Your task to perform on an android device: Set the phone to "Do not disturb". Image 0: 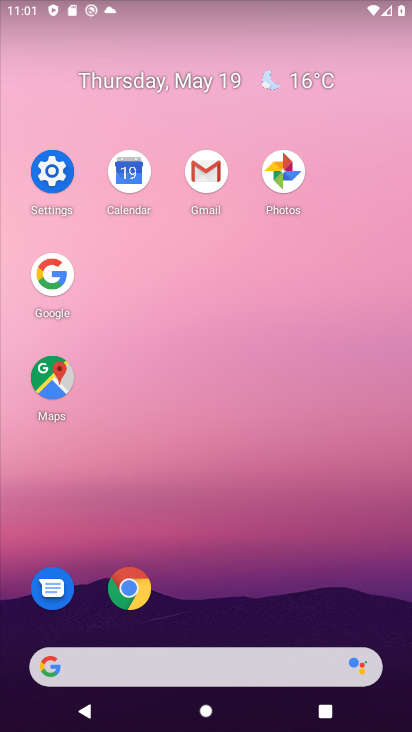
Step 0: click (62, 186)
Your task to perform on an android device: Set the phone to "Do not disturb". Image 1: 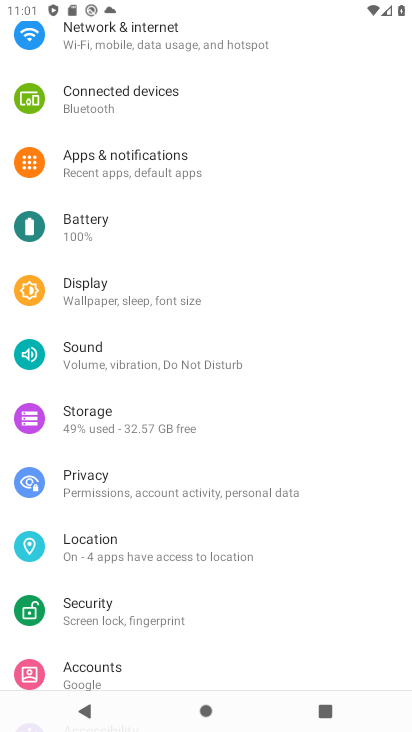
Step 1: click (274, 347)
Your task to perform on an android device: Set the phone to "Do not disturb". Image 2: 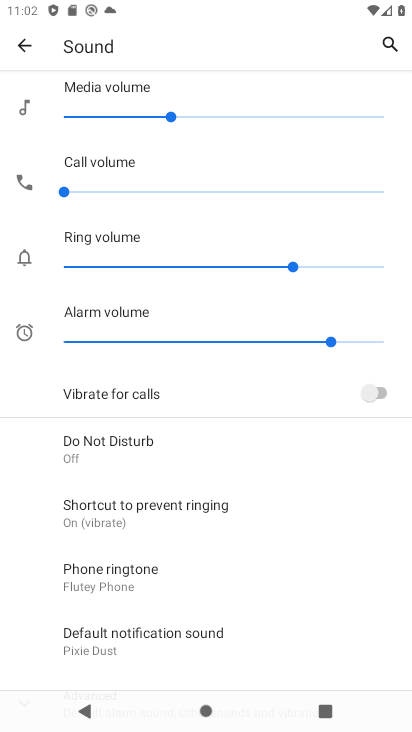
Step 2: drag from (246, 560) to (240, 198)
Your task to perform on an android device: Set the phone to "Do not disturb". Image 3: 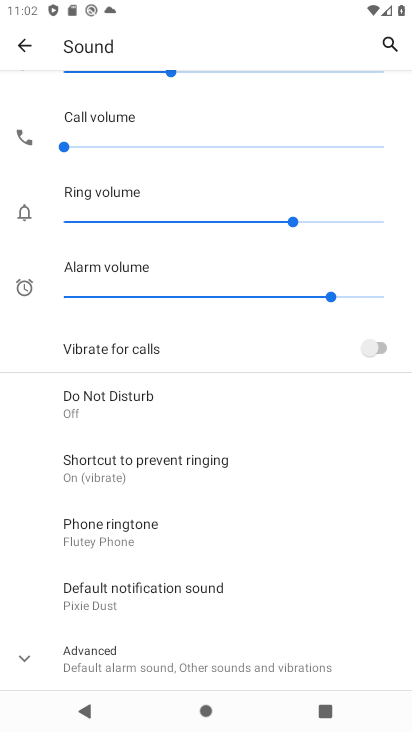
Step 3: click (178, 408)
Your task to perform on an android device: Set the phone to "Do not disturb". Image 4: 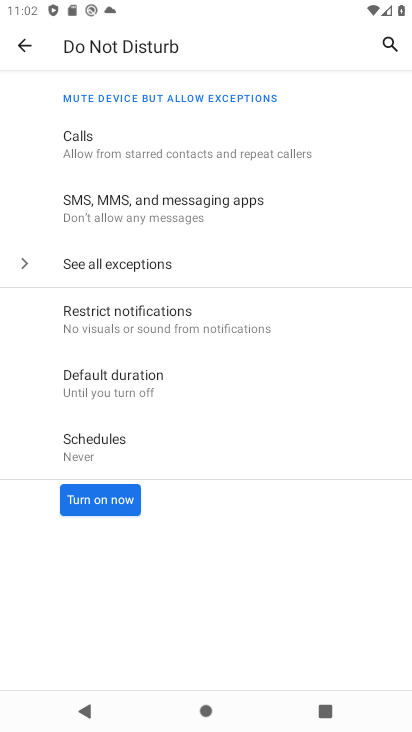
Step 4: click (117, 495)
Your task to perform on an android device: Set the phone to "Do not disturb". Image 5: 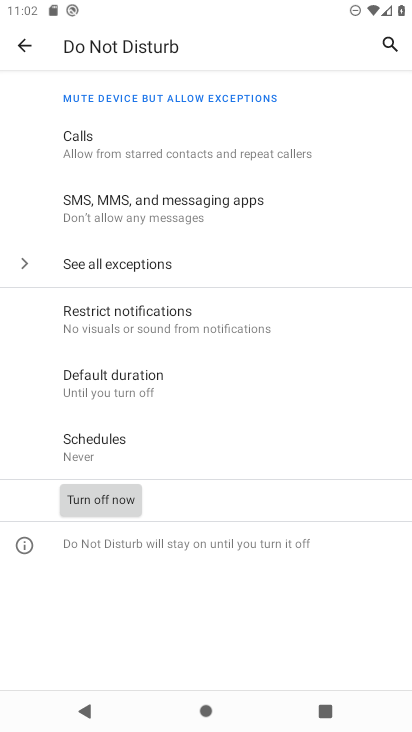
Step 5: task complete